Your task to perform on an android device: Open settings Image 0: 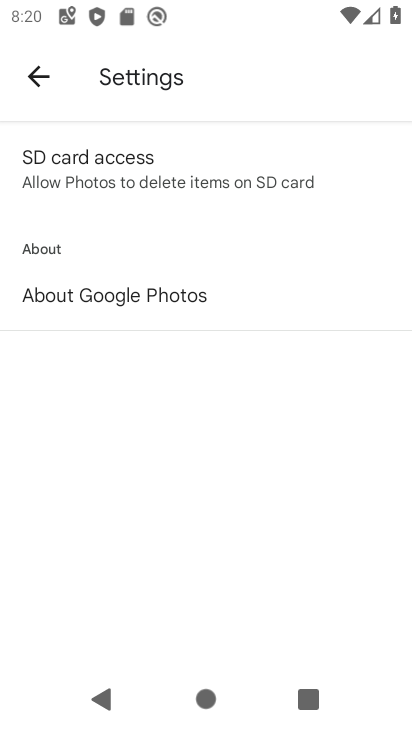
Step 0: press home button
Your task to perform on an android device: Open settings Image 1: 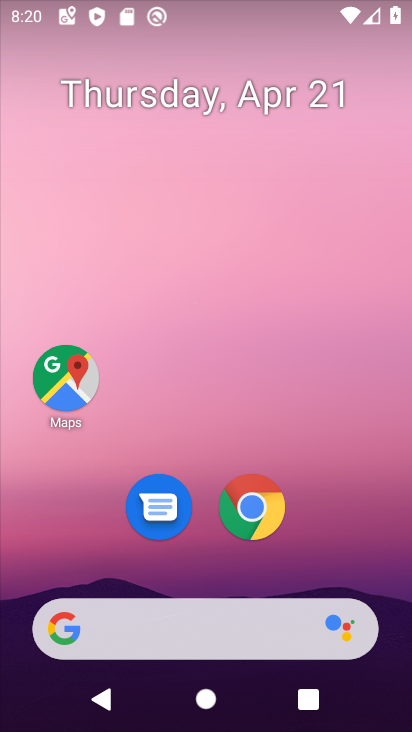
Step 1: drag from (357, 549) to (336, 177)
Your task to perform on an android device: Open settings Image 2: 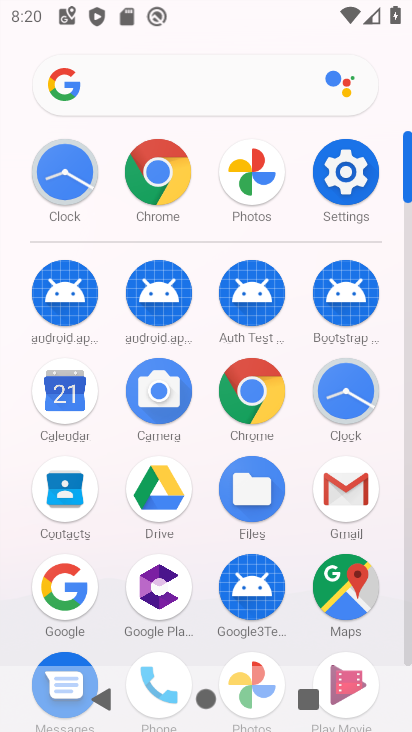
Step 2: click (357, 170)
Your task to perform on an android device: Open settings Image 3: 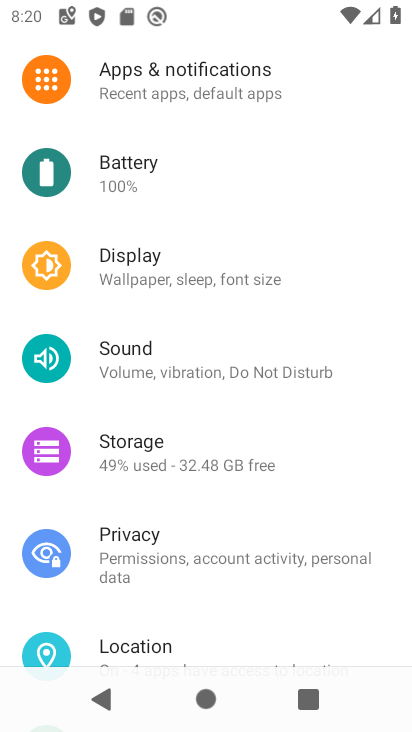
Step 3: task complete